Your task to perform on an android device: change the clock display to analog Image 0: 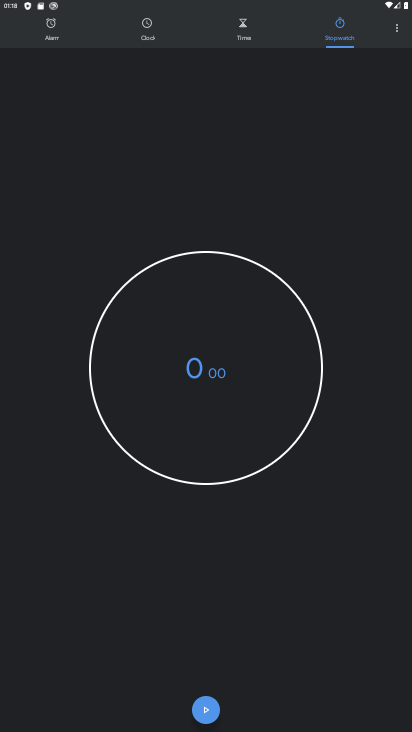
Step 0: click (395, 23)
Your task to perform on an android device: change the clock display to analog Image 1: 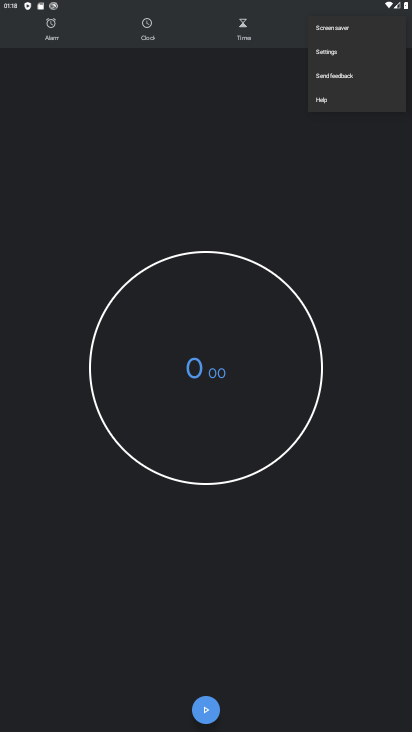
Step 1: click (328, 56)
Your task to perform on an android device: change the clock display to analog Image 2: 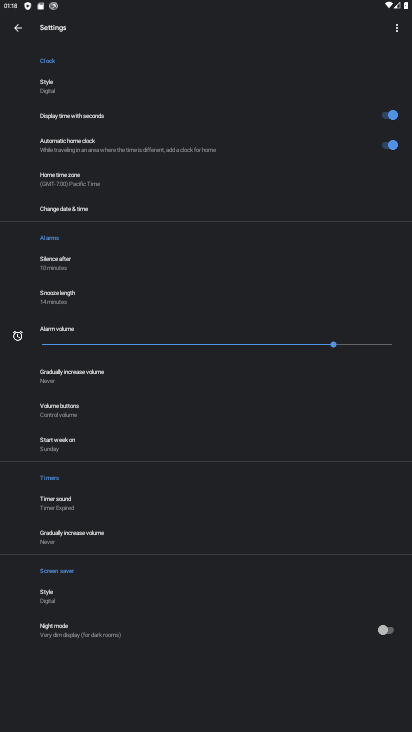
Step 2: click (90, 93)
Your task to perform on an android device: change the clock display to analog Image 3: 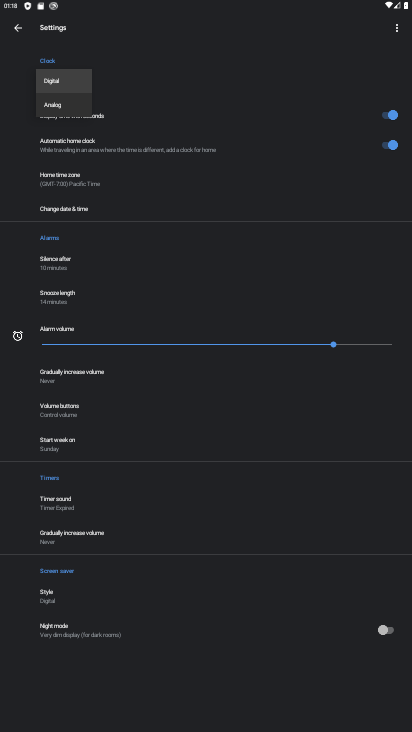
Step 3: click (74, 105)
Your task to perform on an android device: change the clock display to analog Image 4: 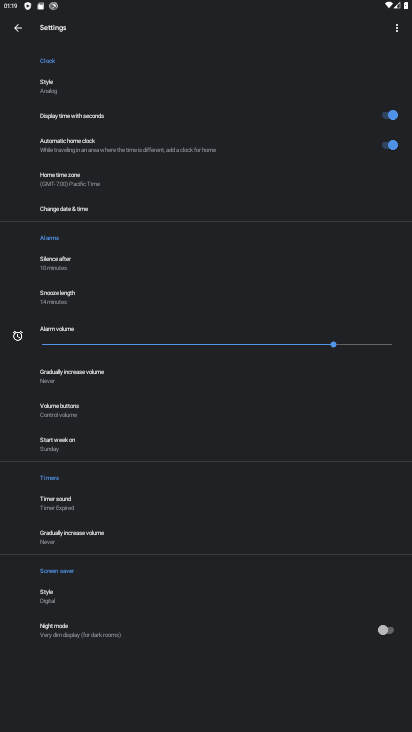
Step 4: task complete